Your task to perform on an android device: Go to display settings Image 0: 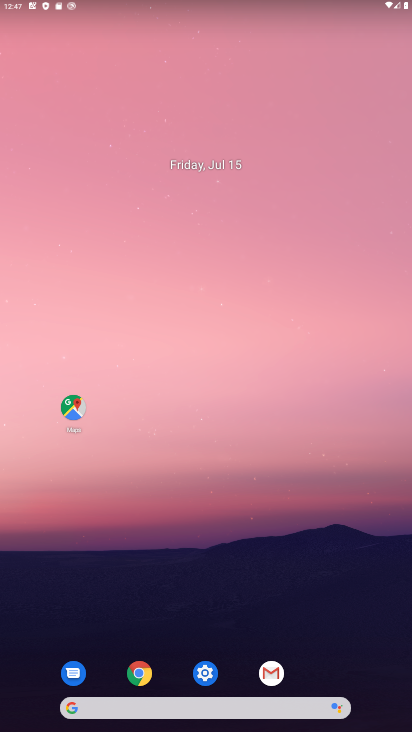
Step 0: press home button
Your task to perform on an android device: Go to display settings Image 1: 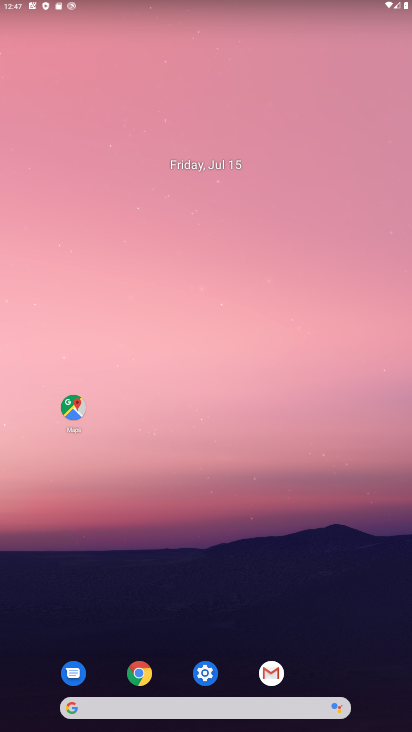
Step 1: click (207, 664)
Your task to perform on an android device: Go to display settings Image 2: 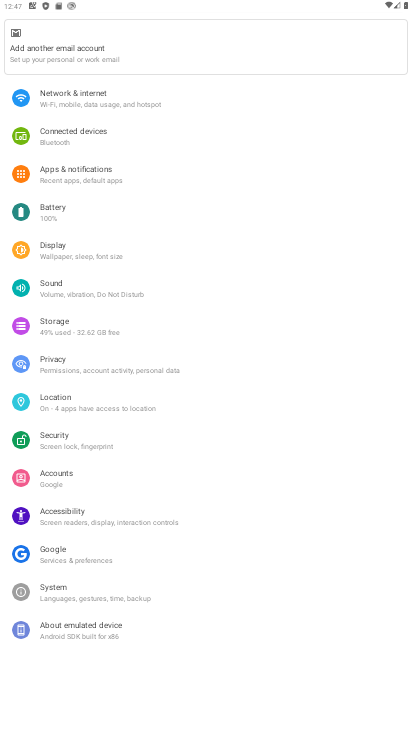
Step 2: click (77, 253)
Your task to perform on an android device: Go to display settings Image 3: 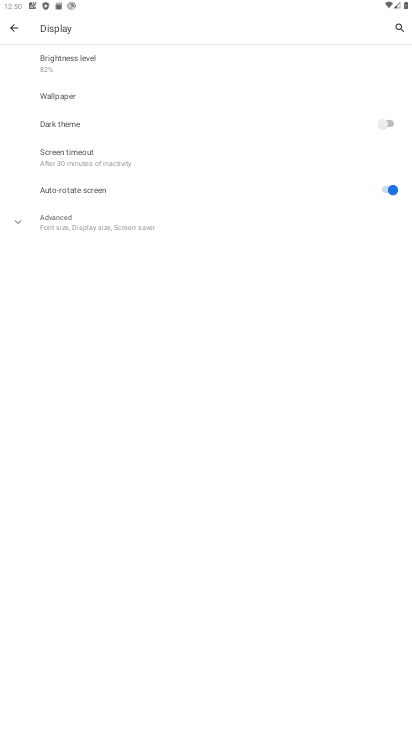
Step 3: task complete